Your task to perform on an android device: turn off airplane mode Image 0: 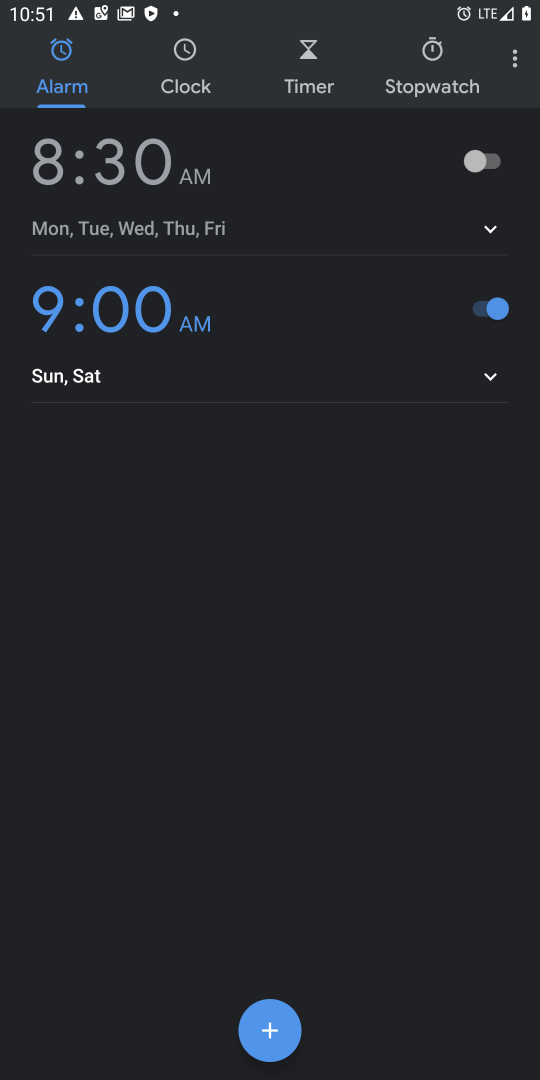
Step 0: press home button
Your task to perform on an android device: turn off airplane mode Image 1: 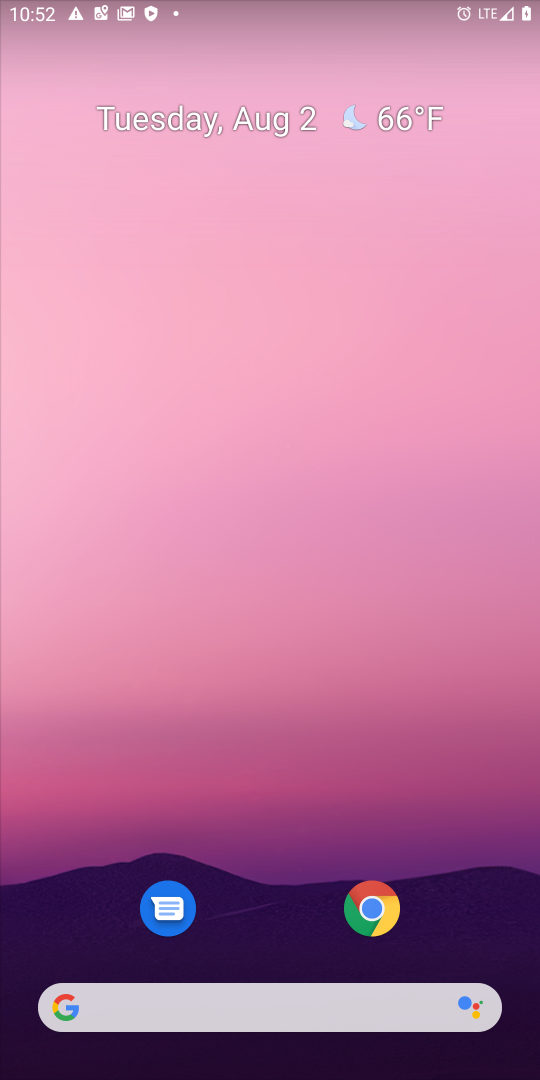
Step 1: drag from (261, 829) to (194, 122)
Your task to perform on an android device: turn off airplane mode Image 2: 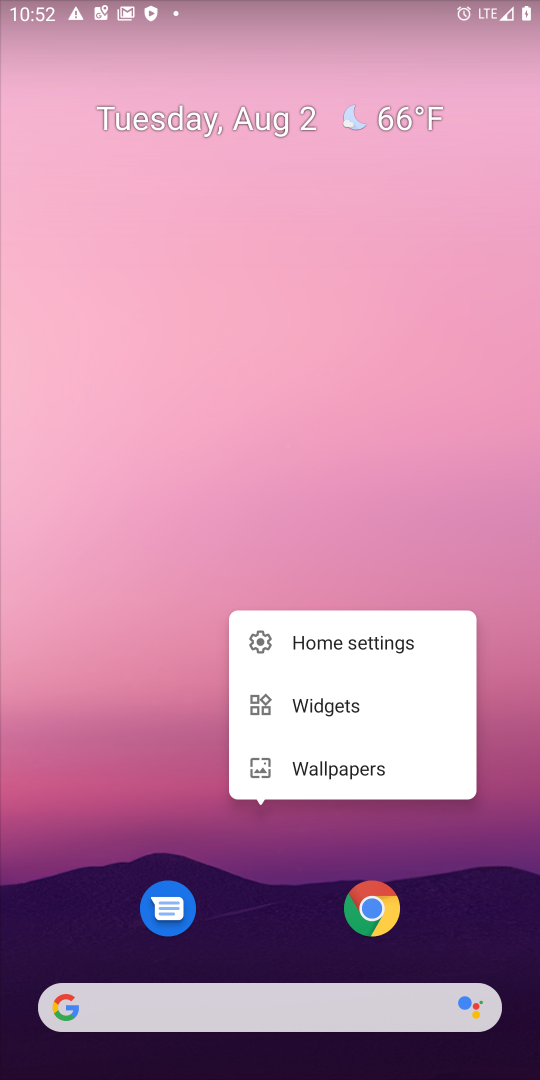
Step 2: drag from (219, 262) to (203, 33)
Your task to perform on an android device: turn off airplane mode Image 3: 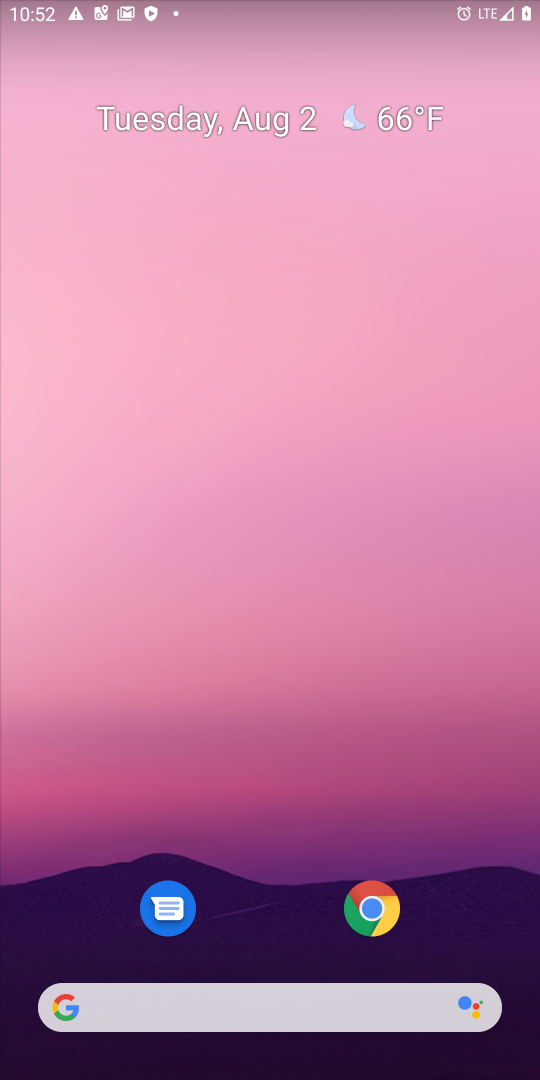
Step 3: drag from (288, 862) to (247, 84)
Your task to perform on an android device: turn off airplane mode Image 4: 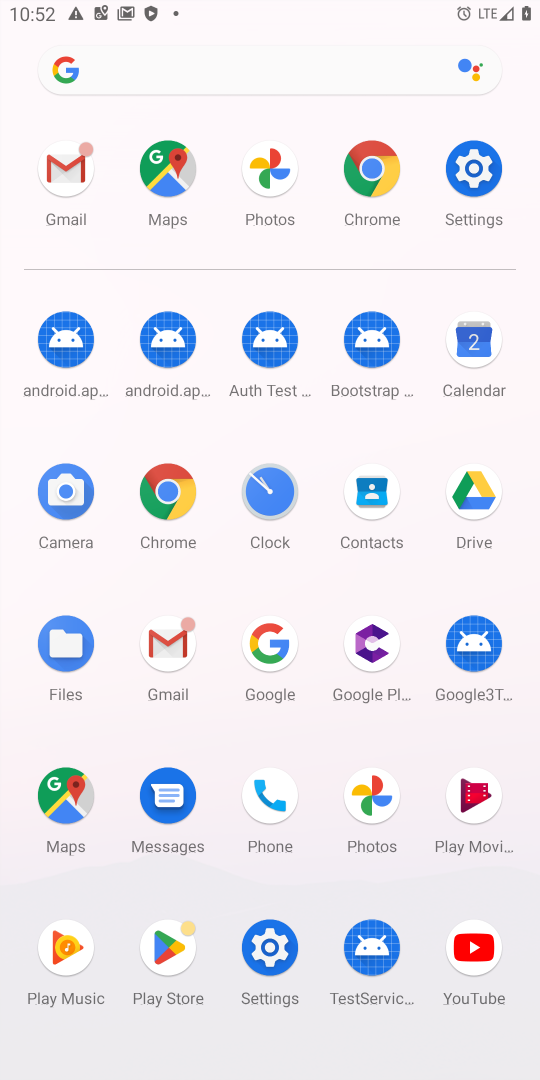
Step 4: click (470, 192)
Your task to perform on an android device: turn off airplane mode Image 5: 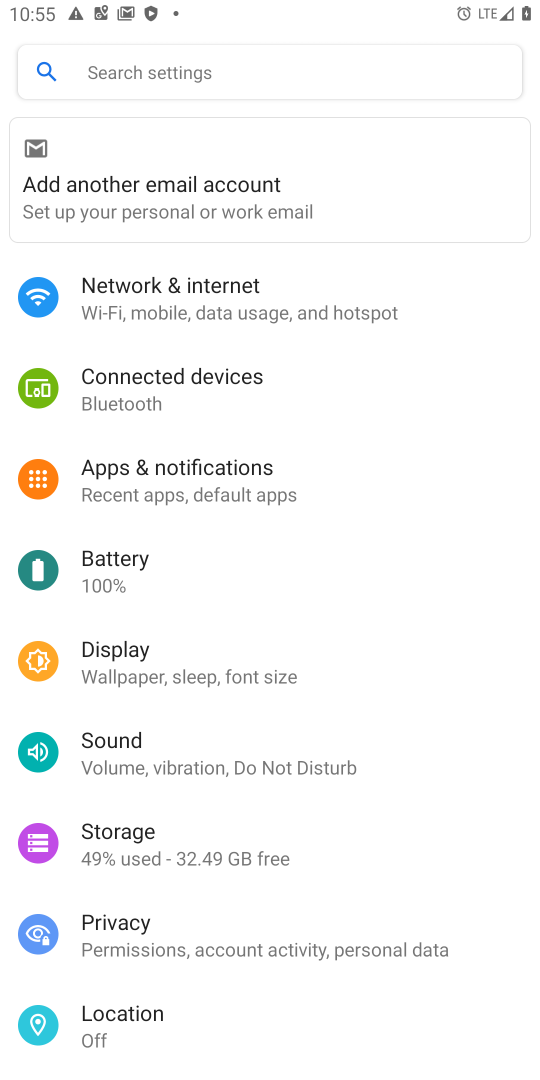
Step 5: click (274, 310)
Your task to perform on an android device: turn off airplane mode Image 6: 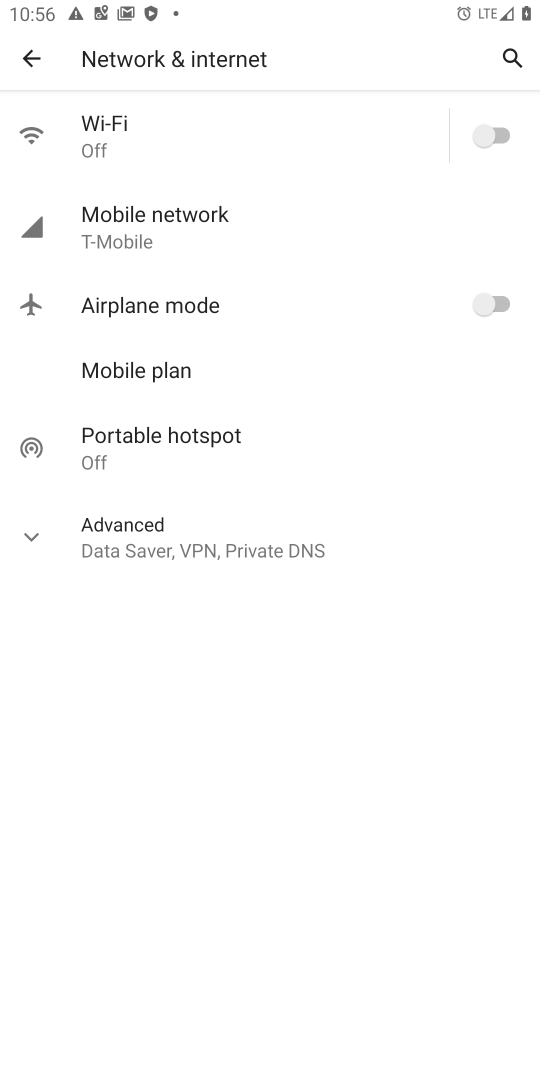
Step 6: task complete